Your task to perform on an android device: toggle improve location accuracy Image 0: 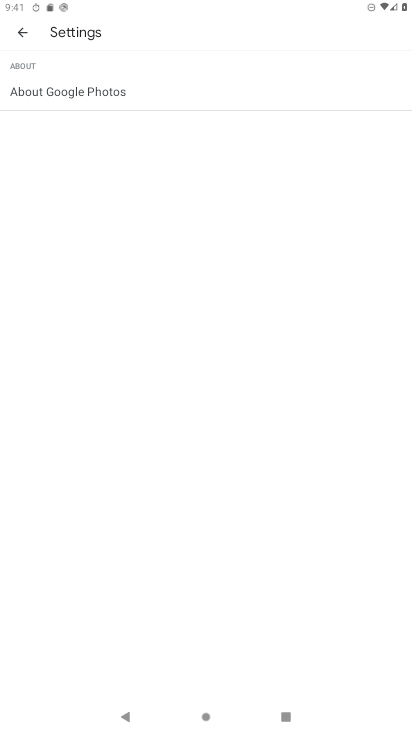
Step 0: press home button
Your task to perform on an android device: toggle improve location accuracy Image 1: 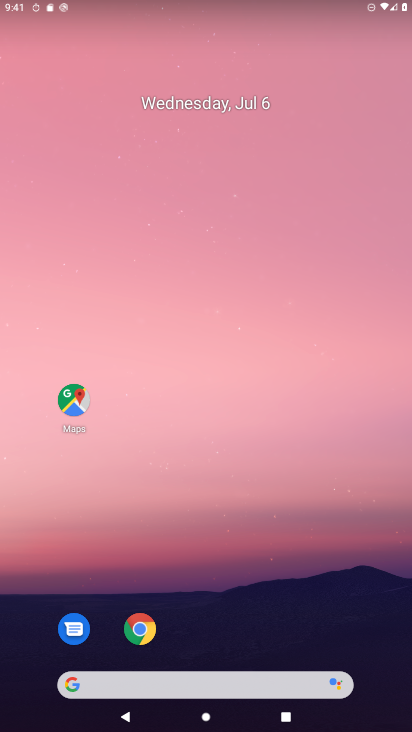
Step 1: drag from (256, 729) to (204, 114)
Your task to perform on an android device: toggle improve location accuracy Image 2: 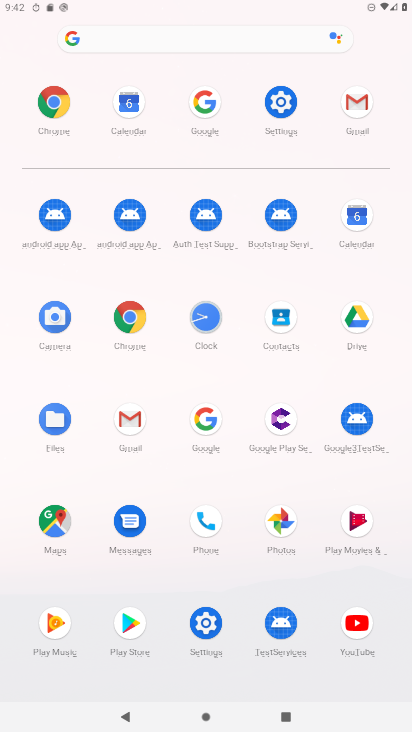
Step 2: click (279, 96)
Your task to perform on an android device: toggle improve location accuracy Image 3: 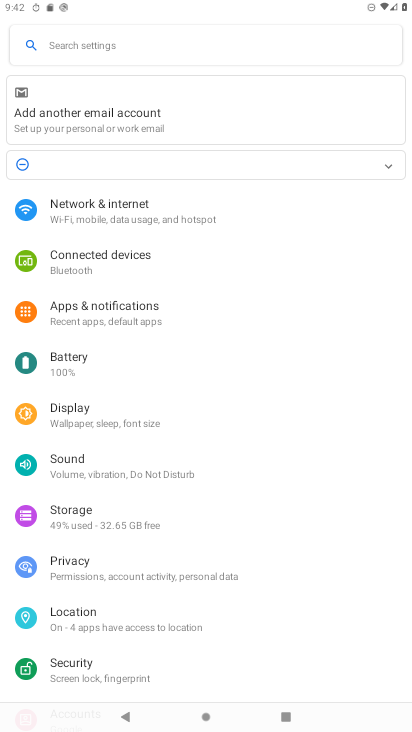
Step 3: click (71, 620)
Your task to perform on an android device: toggle improve location accuracy Image 4: 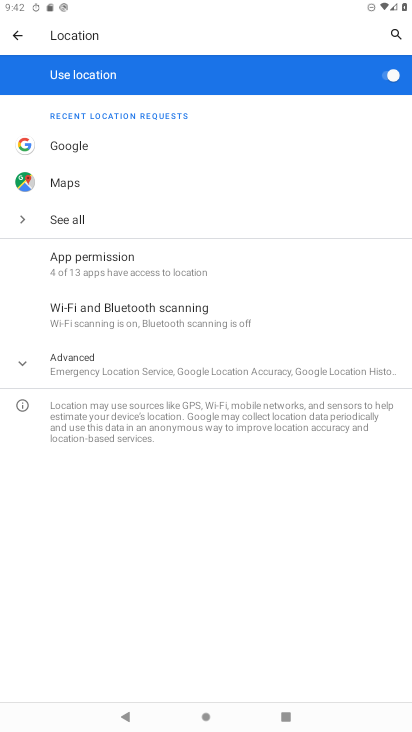
Step 4: click (90, 363)
Your task to perform on an android device: toggle improve location accuracy Image 5: 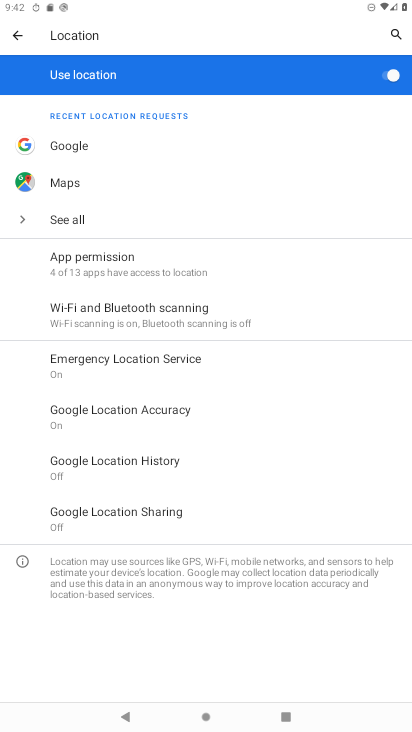
Step 5: click (129, 408)
Your task to perform on an android device: toggle improve location accuracy Image 6: 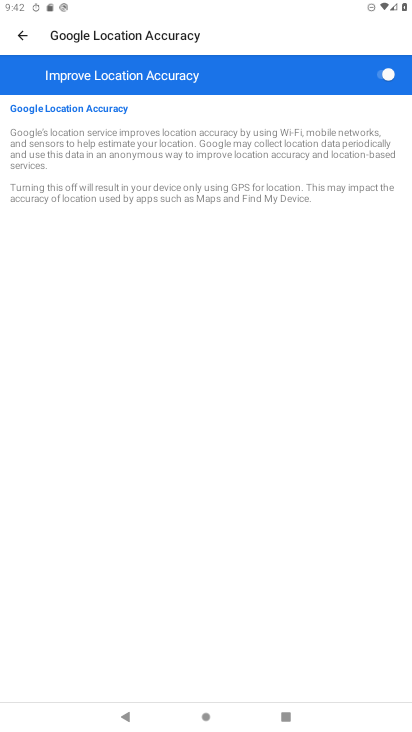
Step 6: click (384, 69)
Your task to perform on an android device: toggle improve location accuracy Image 7: 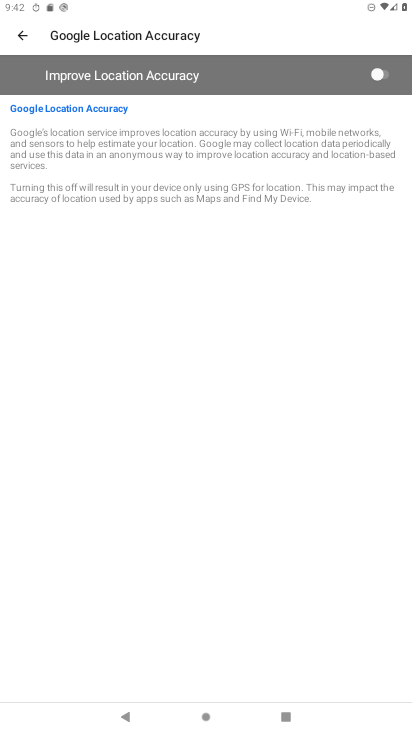
Step 7: task complete